Your task to perform on an android device: turn off picture-in-picture Image 0: 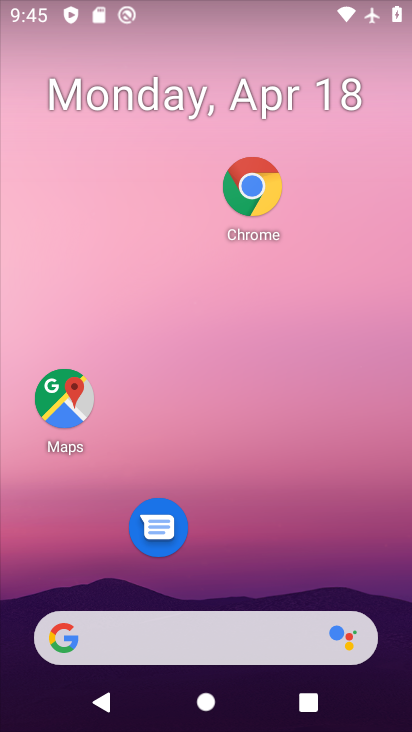
Step 0: drag from (255, 539) to (263, 79)
Your task to perform on an android device: turn off picture-in-picture Image 1: 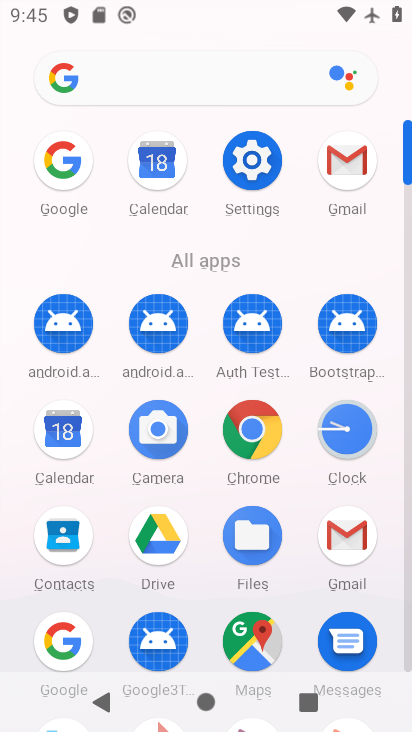
Step 1: click (247, 156)
Your task to perform on an android device: turn off picture-in-picture Image 2: 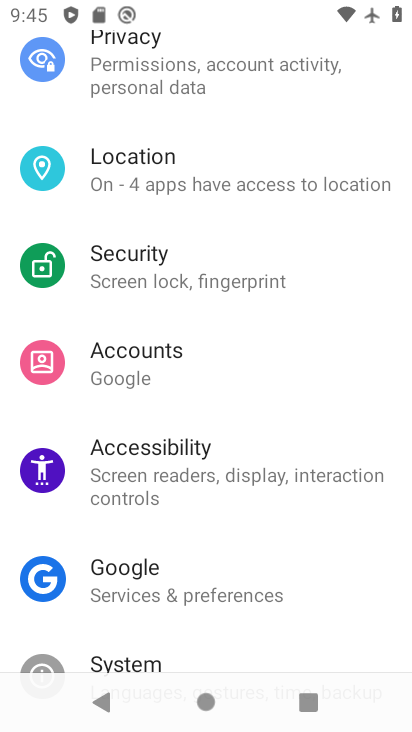
Step 2: drag from (188, 303) to (154, 568)
Your task to perform on an android device: turn off picture-in-picture Image 3: 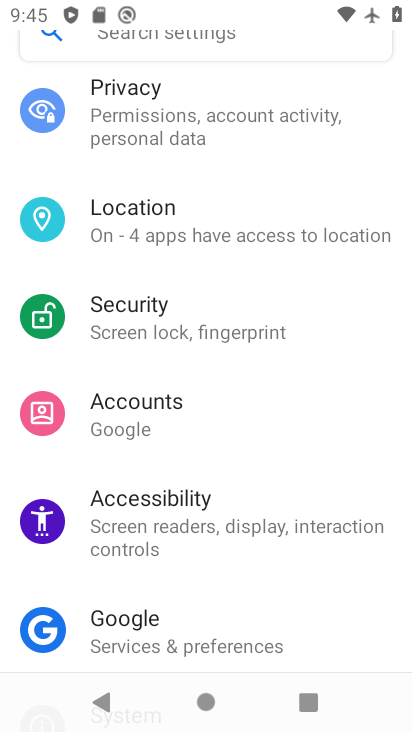
Step 3: drag from (185, 112) to (137, 582)
Your task to perform on an android device: turn off picture-in-picture Image 4: 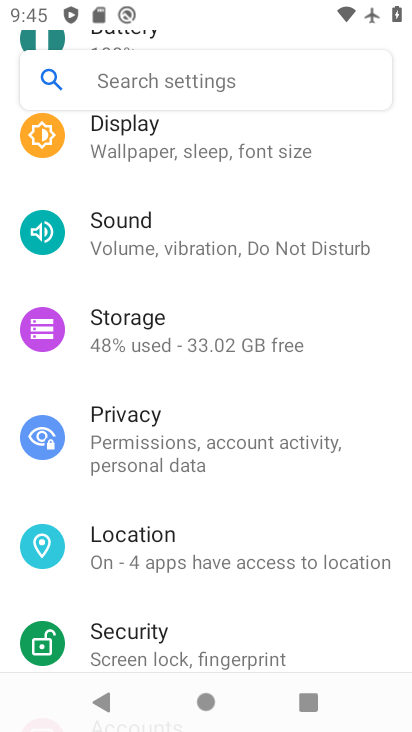
Step 4: drag from (146, 307) to (135, 598)
Your task to perform on an android device: turn off picture-in-picture Image 5: 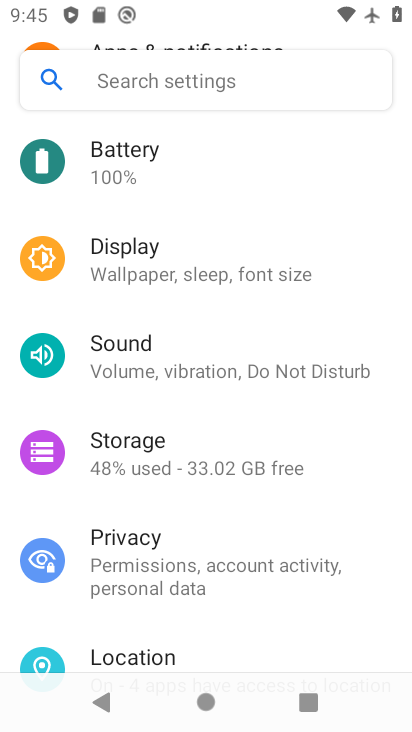
Step 5: drag from (225, 264) to (204, 610)
Your task to perform on an android device: turn off picture-in-picture Image 6: 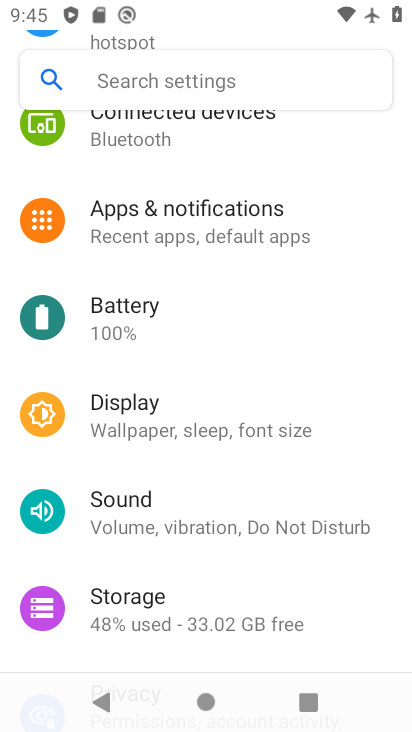
Step 6: click (140, 233)
Your task to perform on an android device: turn off picture-in-picture Image 7: 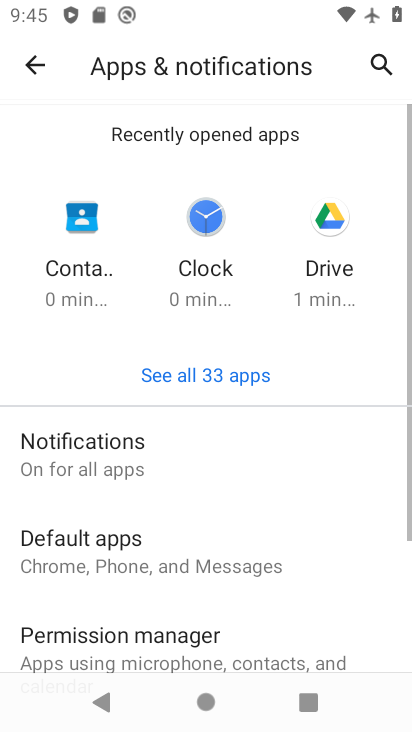
Step 7: drag from (250, 524) to (287, 160)
Your task to perform on an android device: turn off picture-in-picture Image 8: 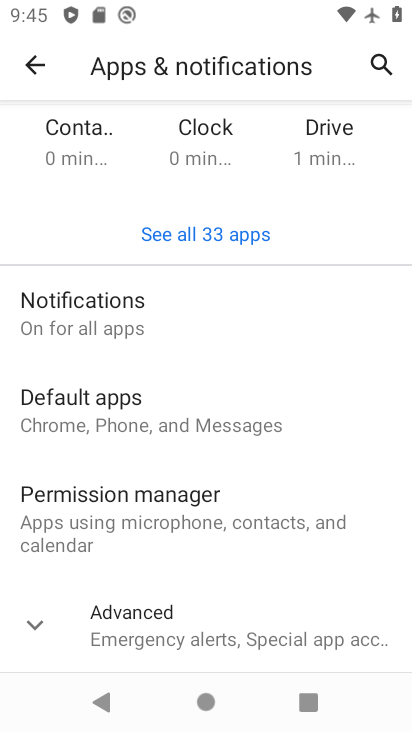
Step 8: click (257, 635)
Your task to perform on an android device: turn off picture-in-picture Image 9: 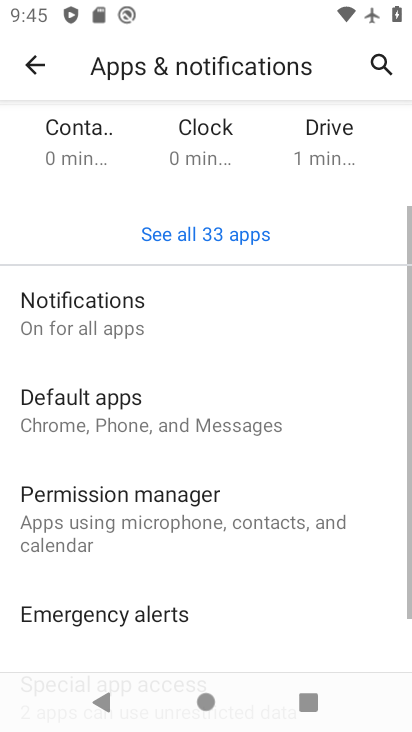
Step 9: drag from (254, 629) to (266, 171)
Your task to perform on an android device: turn off picture-in-picture Image 10: 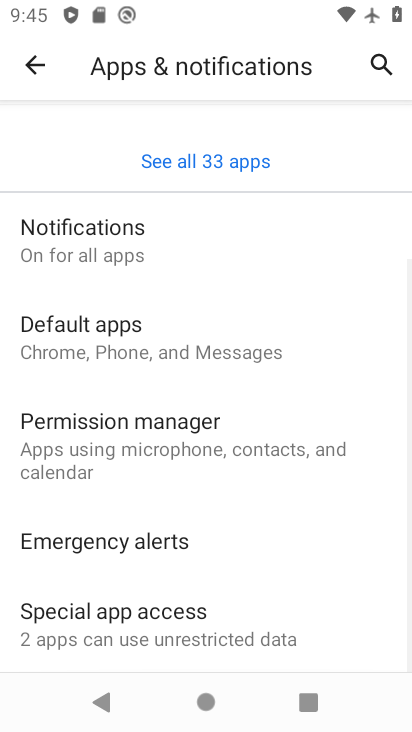
Step 10: click (205, 619)
Your task to perform on an android device: turn off picture-in-picture Image 11: 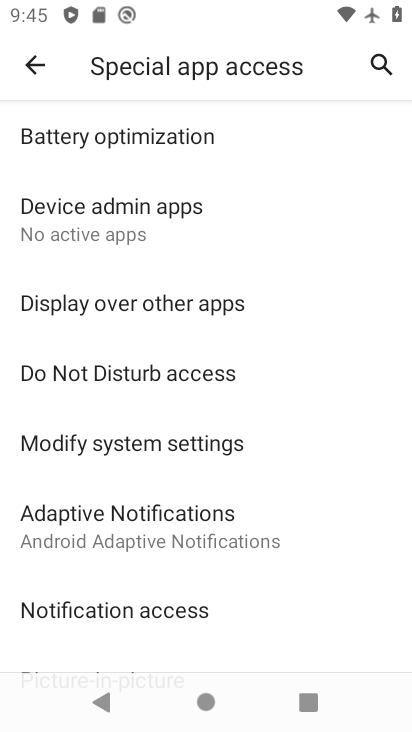
Step 11: drag from (236, 575) to (259, 169)
Your task to perform on an android device: turn off picture-in-picture Image 12: 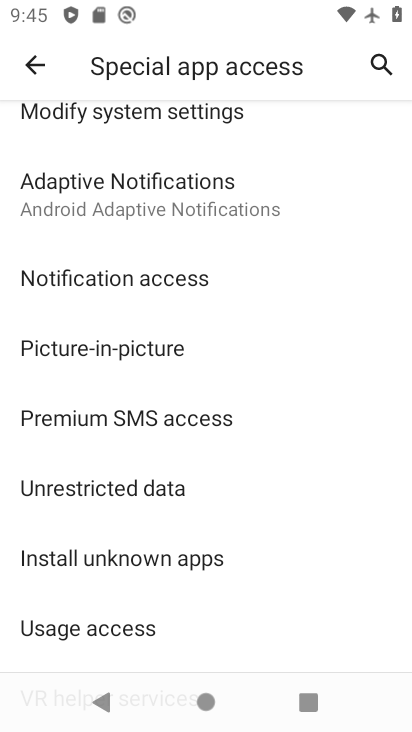
Step 12: click (136, 351)
Your task to perform on an android device: turn off picture-in-picture Image 13: 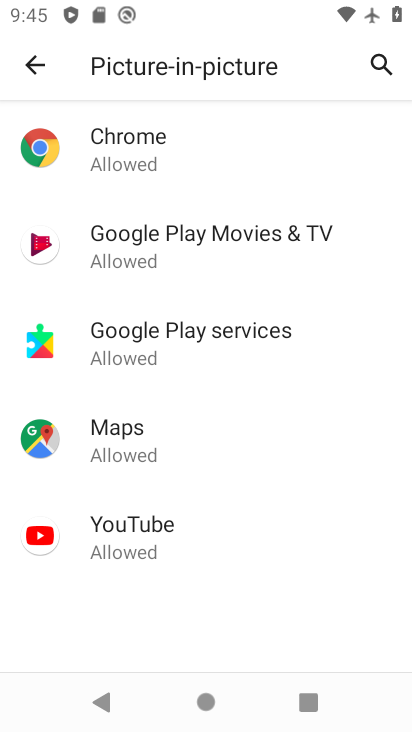
Step 13: click (115, 170)
Your task to perform on an android device: turn off picture-in-picture Image 14: 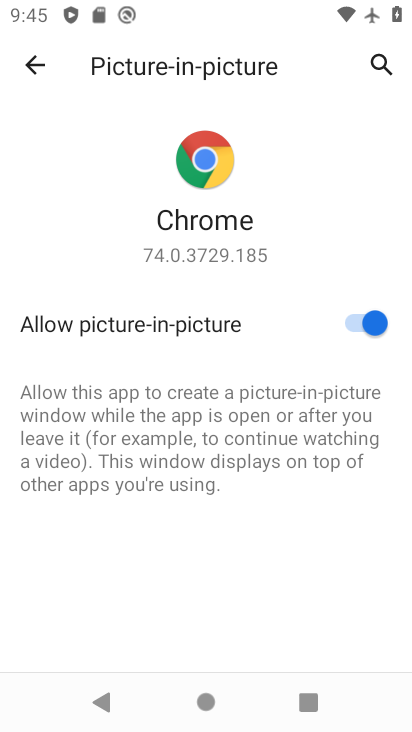
Step 14: click (346, 328)
Your task to perform on an android device: turn off picture-in-picture Image 15: 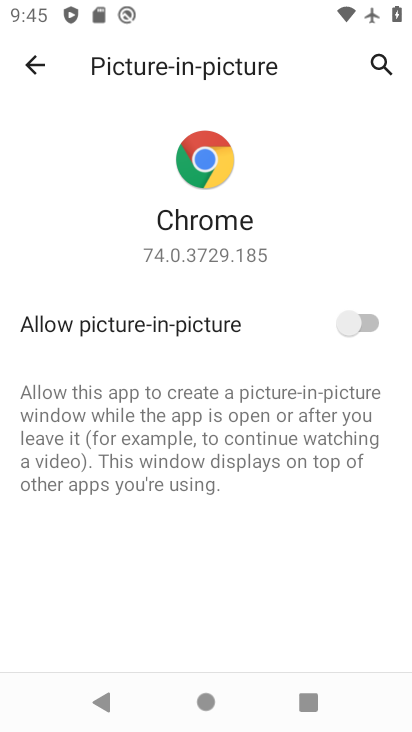
Step 15: click (52, 67)
Your task to perform on an android device: turn off picture-in-picture Image 16: 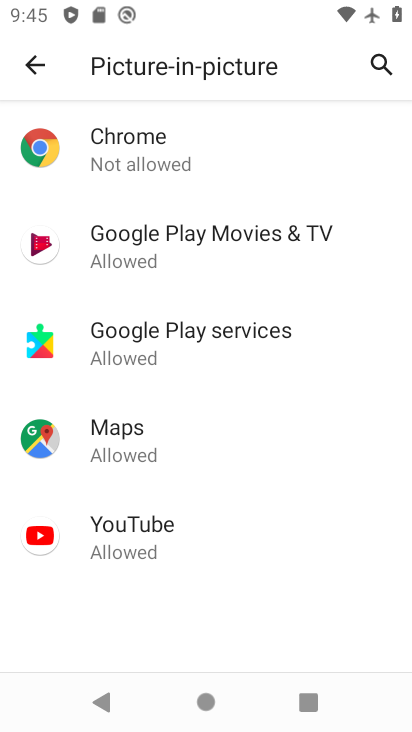
Step 16: click (118, 243)
Your task to perform on an android device: turn off picture-in-picture Image 17: 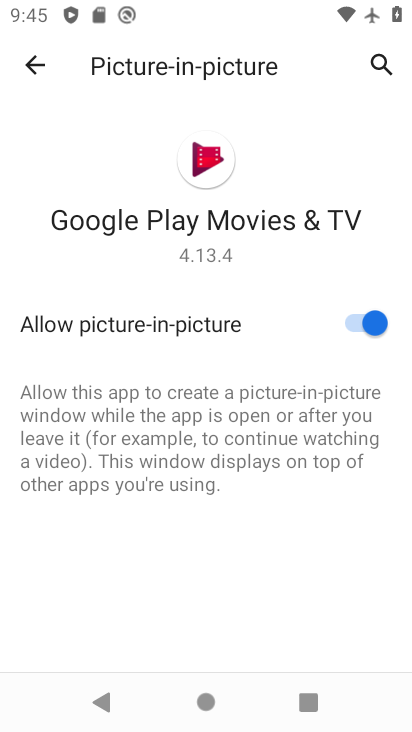
Step 17: click (345, 318)
Your task to perform on an android device: turn off picture-in-picture Image 18: 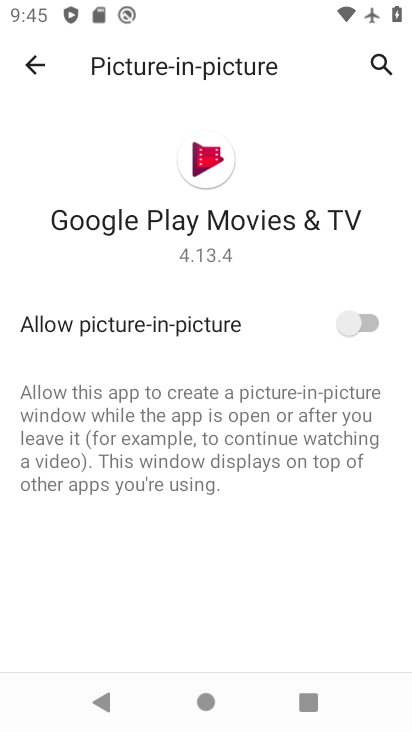
Step 18: click (322, 301)
Your task to perform on an android device: turn off picture-in-picture Image 19: 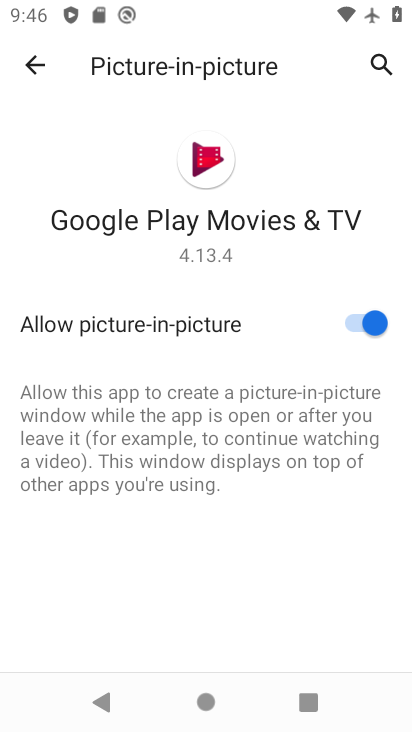
Step 19: click (339, 327)
Your task to perform on an android device: turn off picture-in-picture Image 20: 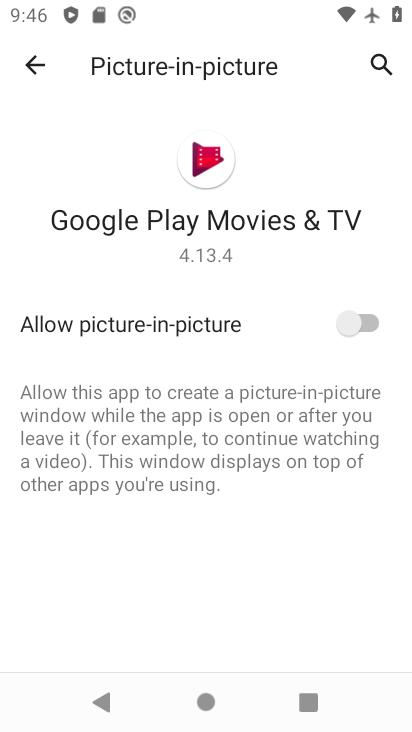
Step 20: click (43, 81)
Your task to perform on an android device: turn off picture-in-picture Image 21: 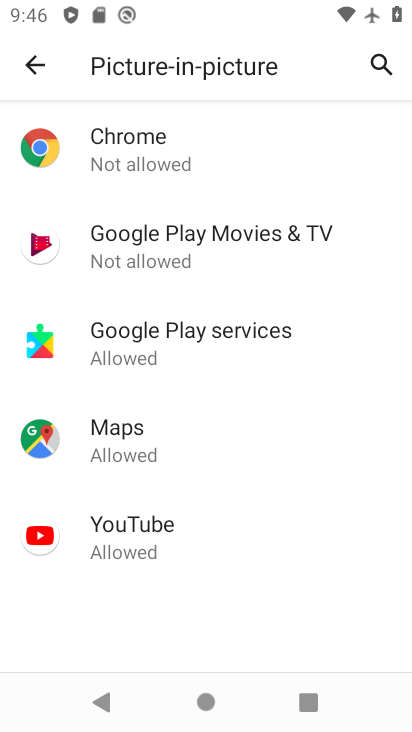
Step 21: click (232, 345)
Your task to perform on an android device: turn off picture-in-picture Image 22: 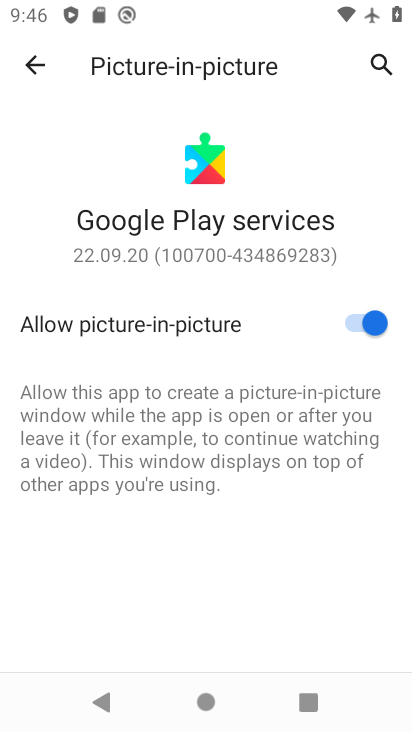
Step 22: click (348, 317)
Your task to perform on an android device: turn off picture-in-picture Image 23: 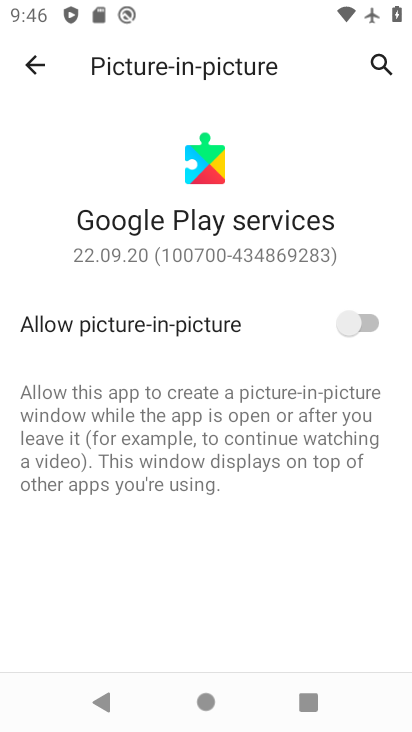
Step 23: click (36, 67)
Your task to perform on an android device: turn off picture-in-picture Image 24: 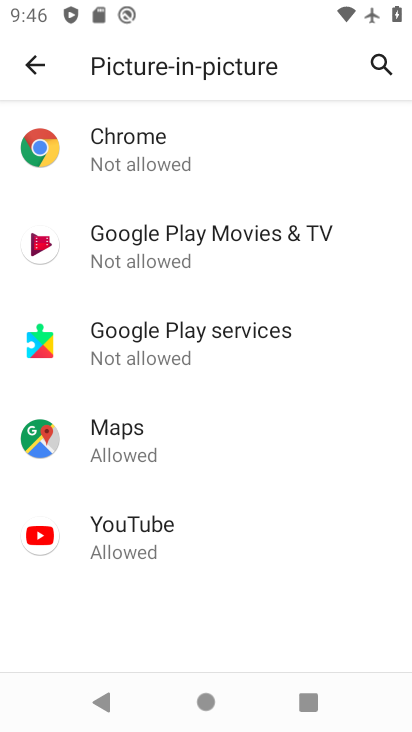
Step 24: click (128, 459)
Your task to perform on an android device: turn off picture-in-picture Image 25: 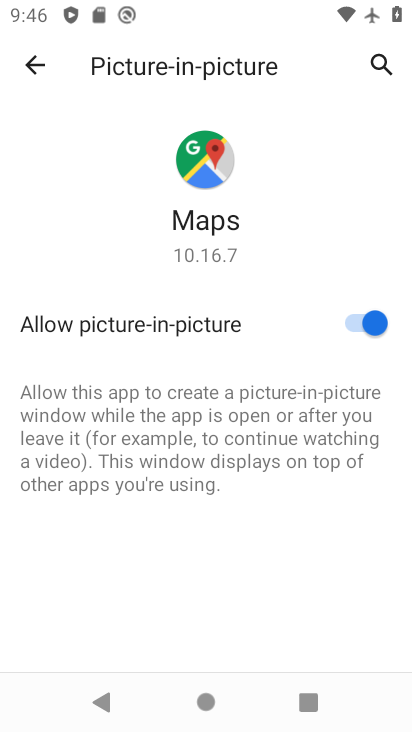
Step 25: click (333, 319)
Your task to perform on an android device: turn off picture-in-picture Image 26: 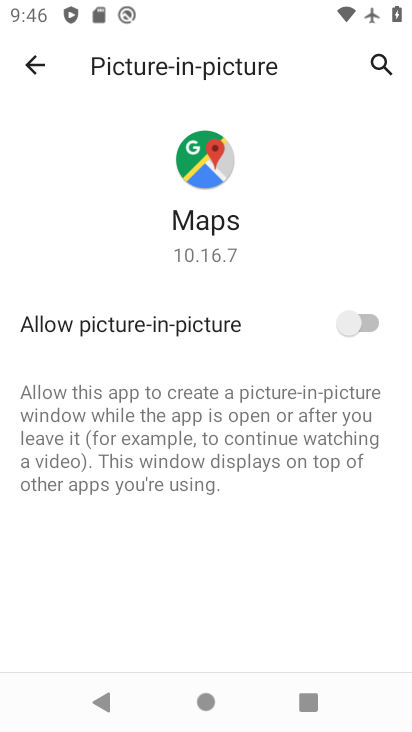
Step 26: click (29, 74)
Your task to perform on an android device: turn off picture-in-picture Image 27: 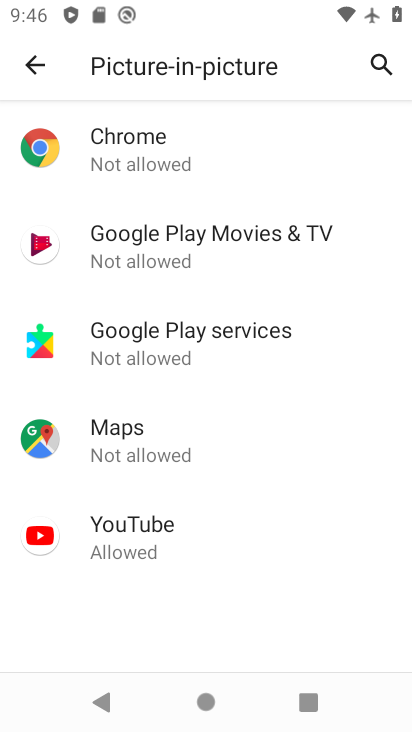
Step 27: click (29, 74)
Your task to perform on an android device: turn off picture-in-picture Image 28: 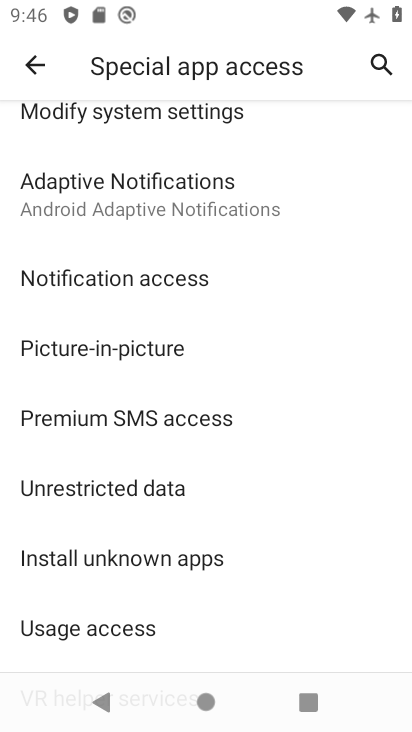
Step 28: task complete